Your task to perform on an android device: open chrome privacy settings Image 0: 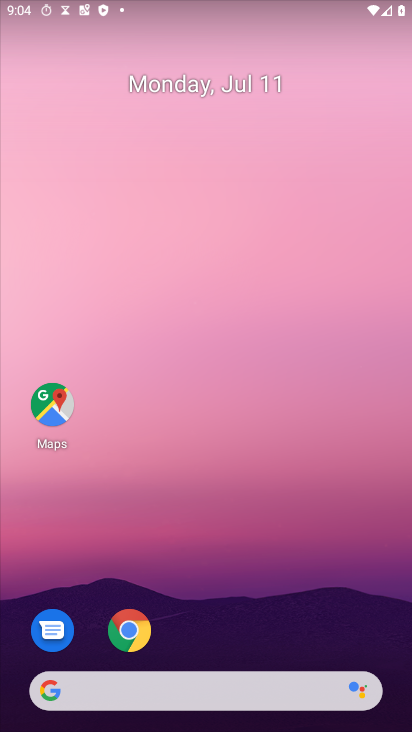
Step 0: click (128, 622)
Your task to perform on an android device: open chrome privacy settings Image 1: 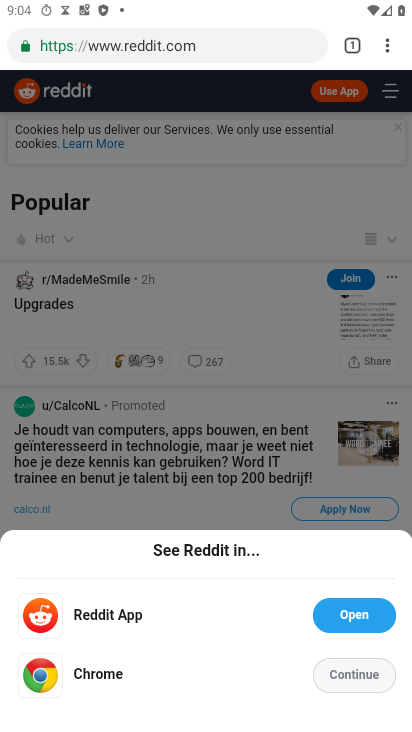
Step 1: click (351, 672)
Your task to perform on an android device: open chrome privacy settings Image 2: 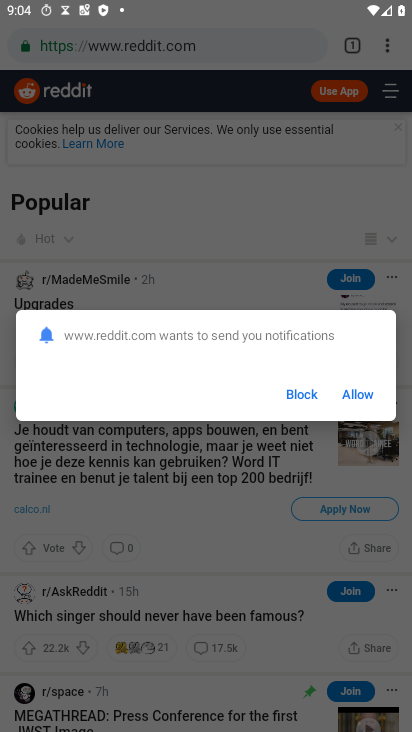
Step 2: click (359, 395)
Your task to perform on an android device: open chrome privacy settings Image 3: 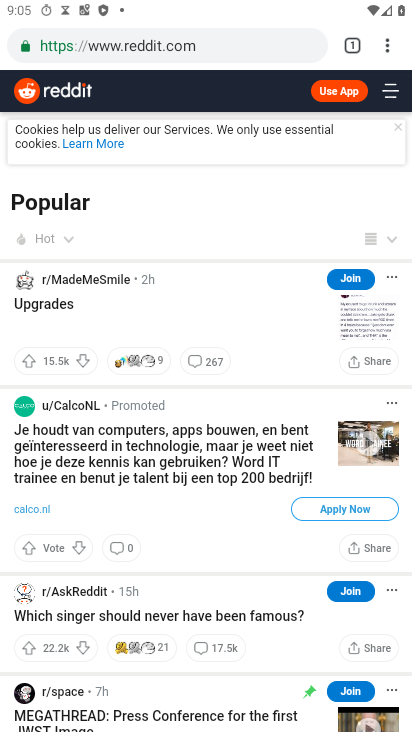
Step 3: click (383, 44)
Your task to perform on an android device: open chrome privacy settings Image 4: 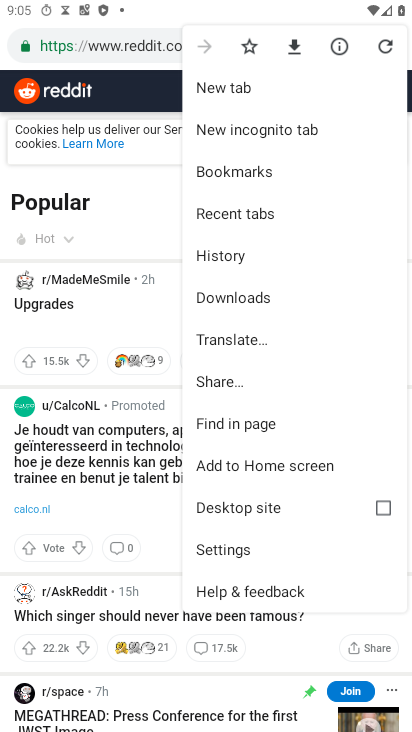
Step 4: click (260, 543)
Your task to perform on an android device: open chrome privacy settings Image 5: 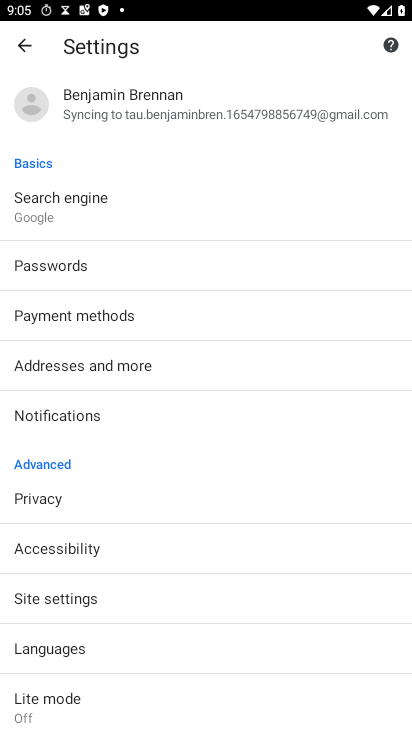
Step 5: click (86, 493)
Your task to perform on an android device: open chrome privacy settings Image 6: 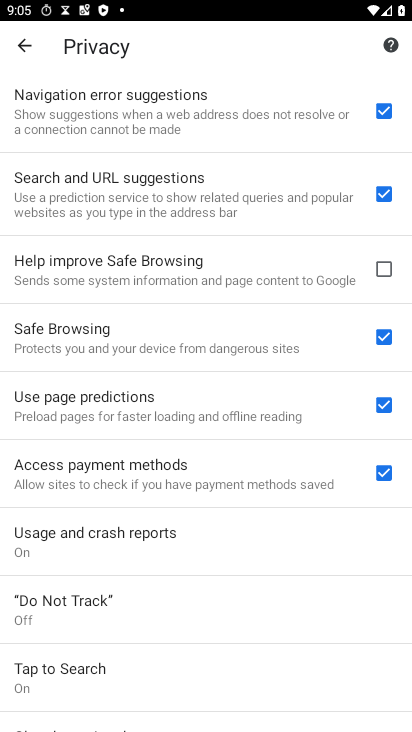
Step 6: task complete